Your task to perform on an android device: Open battery settings Image 0: 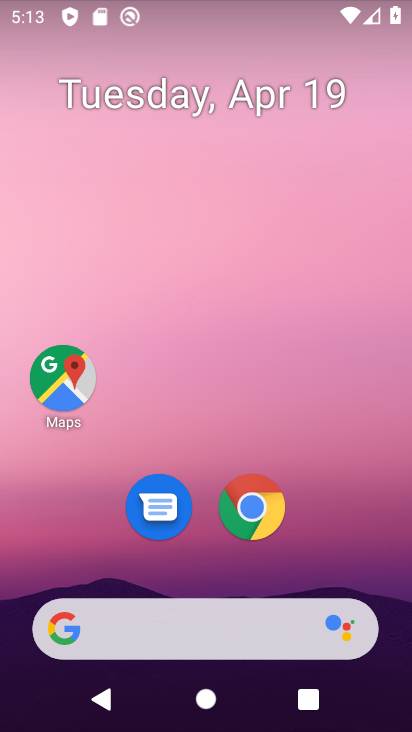
Step 0: click (364, 0)
Your task to perform on an android device: Open battery settings Image 1: 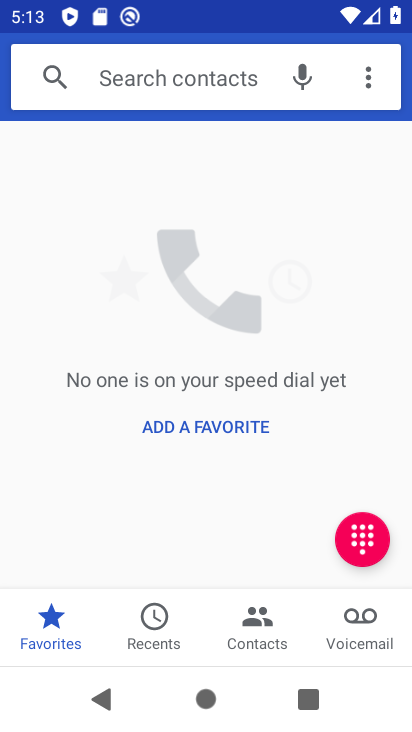
Step 1: click (202, 695)
Your task to perform on an android device: Open battery settings Image 2: 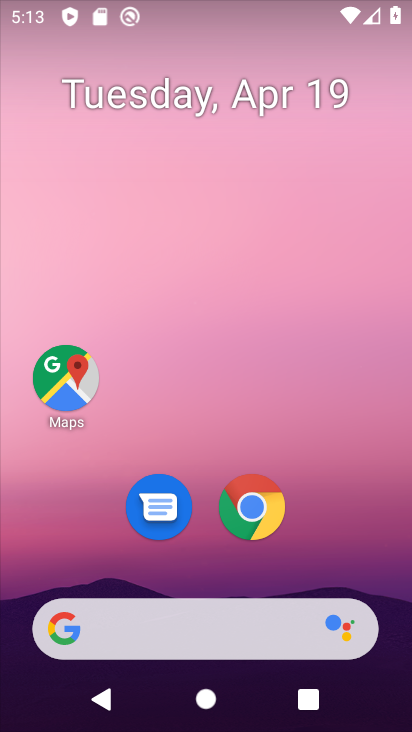
Step 2: drag from (334, 496) to (339, 44)
Your task to perform on an android device: Open battery settings Image 3: 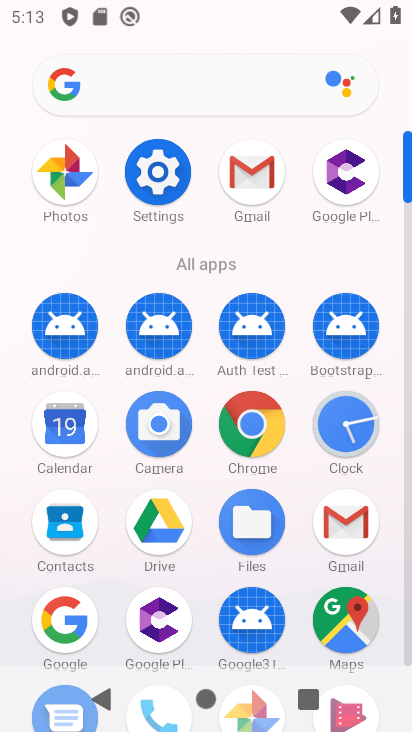
Step 3: click (153, 190)
Your task to perform on an android device: Open battery settings Image 4: 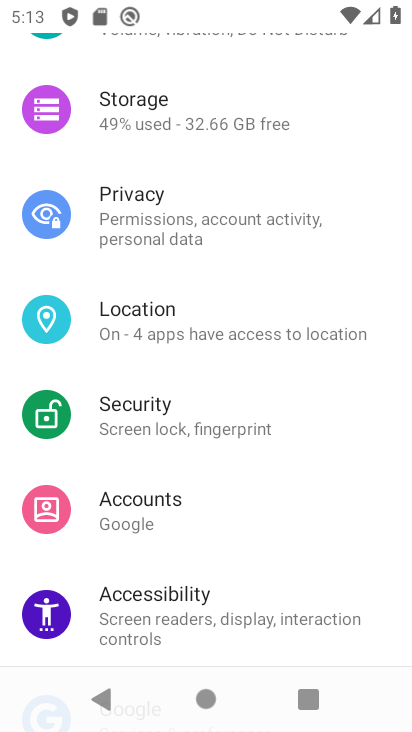
Step 4: drag from (224, 293) to (271, 689)
Your task to perform on an android device: Open battery settings Image 5: 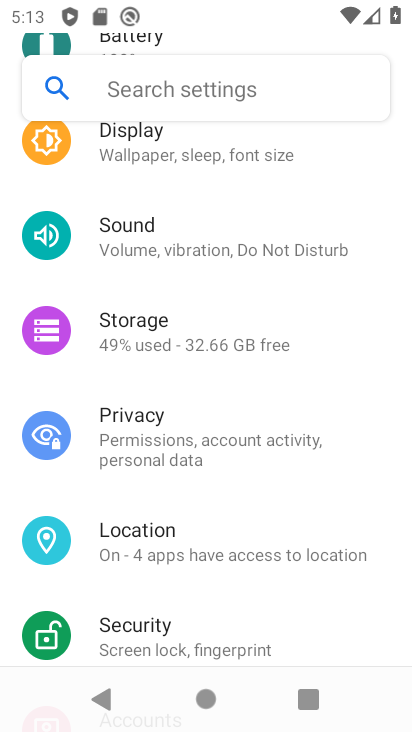
Step 5: drag from (176, 204) to (205, 600)
Your task to perform on an android device: Open battery settings Image 6: 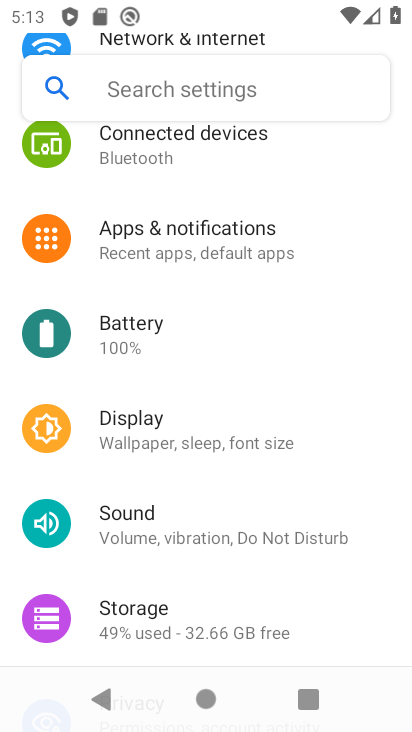
Step 6: drag from (175, 208) to (190, 541)
Your task to perform on an android device: Open battery settings Image 7: 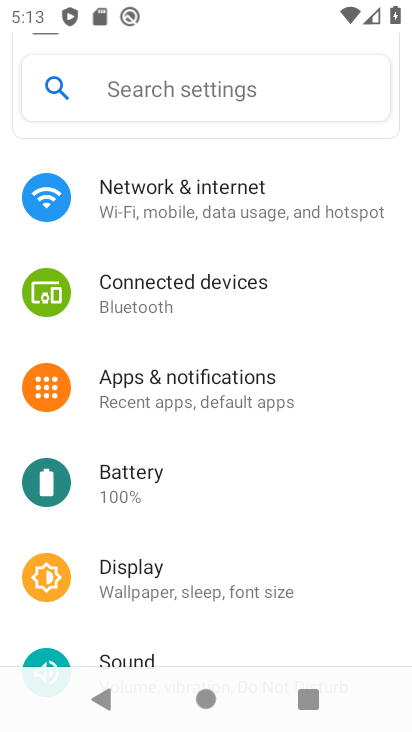
Step 7: click (131, 483)
Your task to perform on an android device: Open battery settings Image 8: 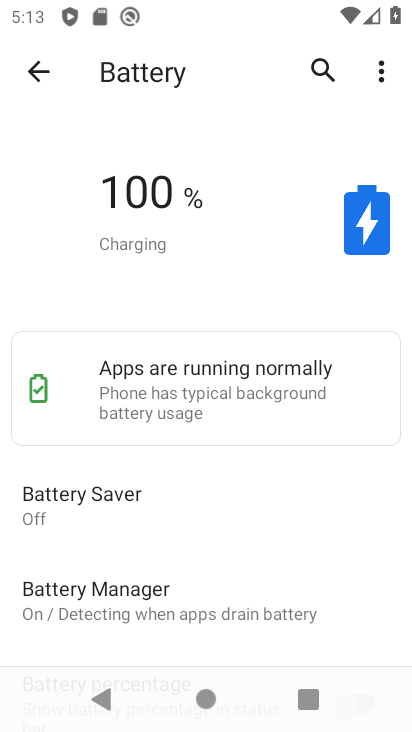
Step 8: task complete